Your task to perform on an android device: Open the web browser Image 0: 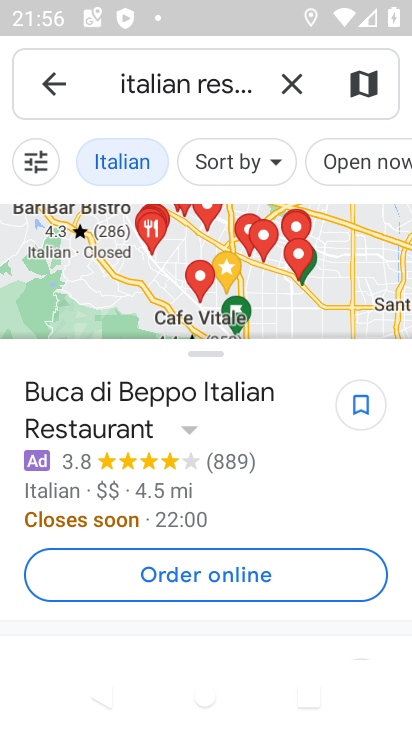
Step 0: press home button
Your task to perform on an android device: Open the web browser Image 1: 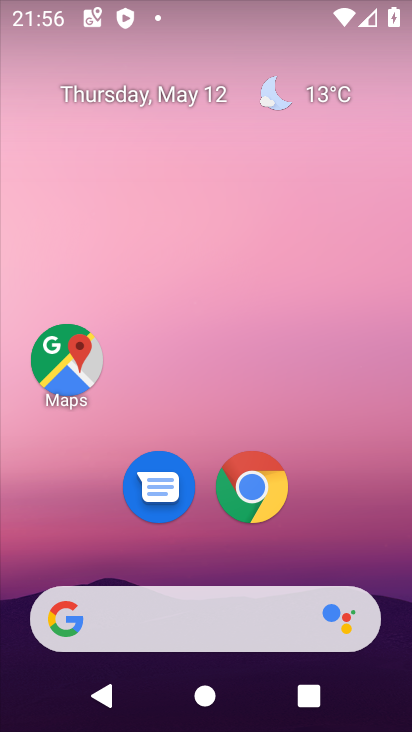
Step 1: click (182, 630)
Your task to perform on an android device: Open the web browser Image 2: 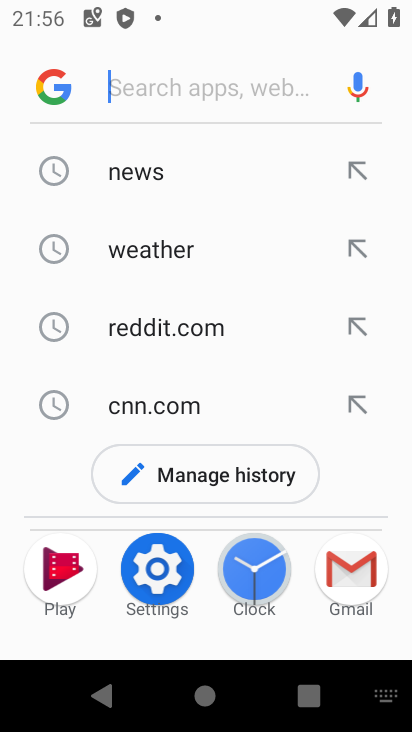
Step 2: task complete